Your task to perform on an android device: check battery use Image 0: 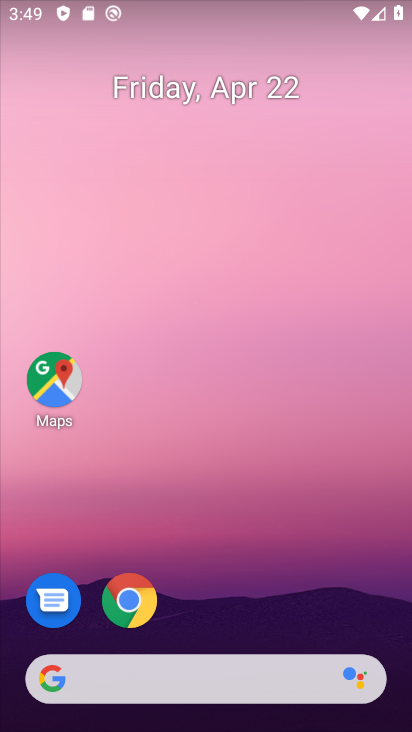
Step 0: drag from (298, 597) to (238, 251)
Your task to perform on an android device: check battery use Image 1: 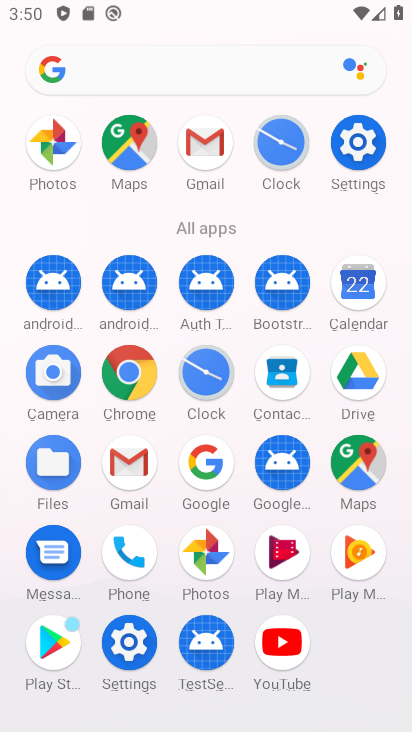
Step 1: click (364, 172)
Your task to perform on an android device: check battery use Image 2: 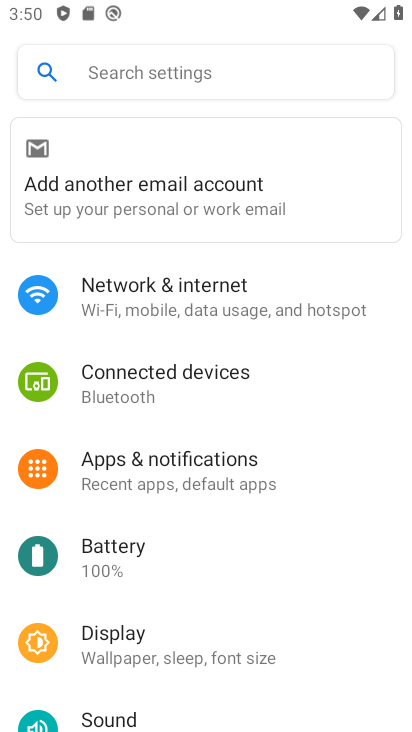
Step 2: click (277, 546)
Your task to perform on an android device: check battery use Image 3: 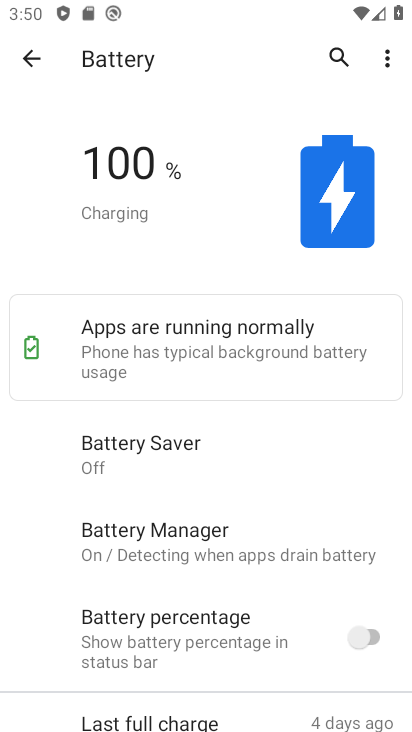
Step 3: task complete